Your task to perform on an android device: When is my next appointment? Image 0: 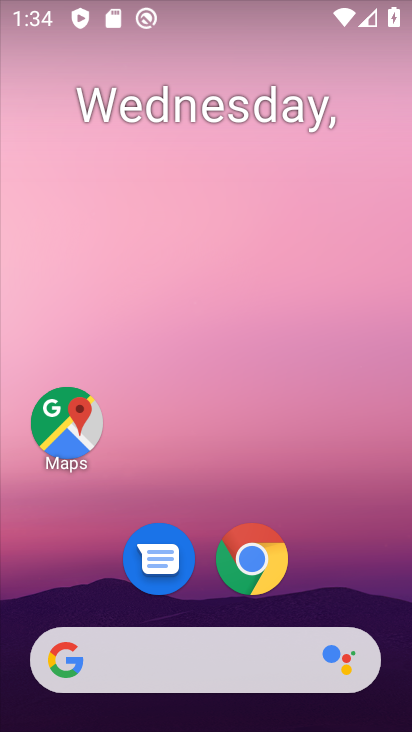
Step 0: drag from (195, 523) to (229, 74)
Your task to perform on an android device: When is my next appointment? Image 1: 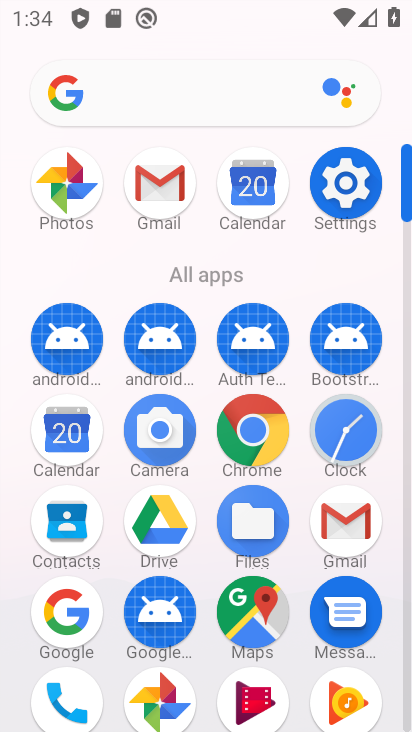
Step 1: click (56, 450)
Your task to perform on an android device: When is my next appointment? Image 2: 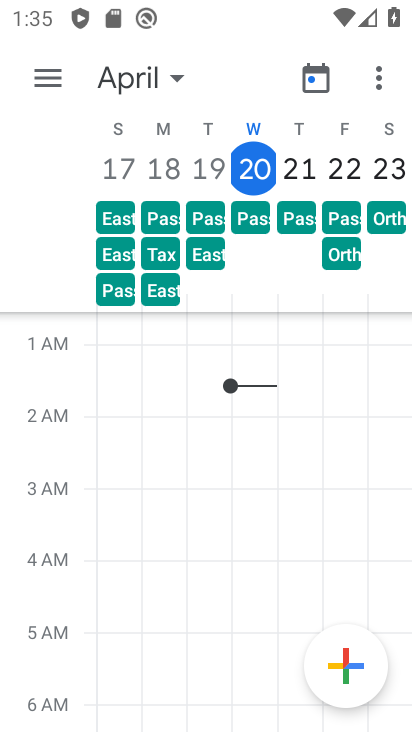
Step 2: click (297, 389)
Your task to perform on an android device: When is my next appointment? Image 3: 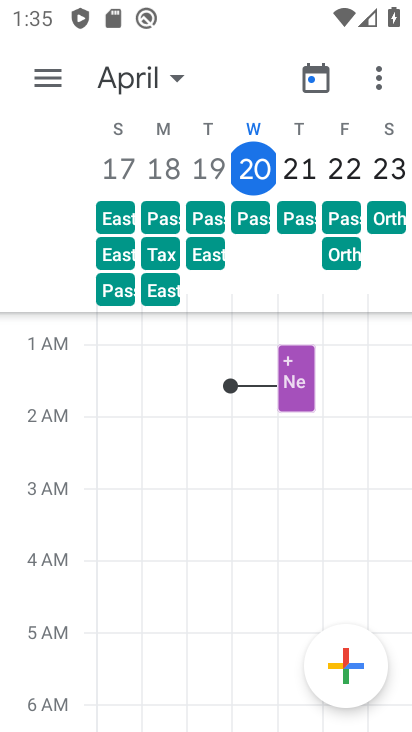
Step 3: click (294, 172)
Your task to perform on an android device: When is my next appointment? Image 4: 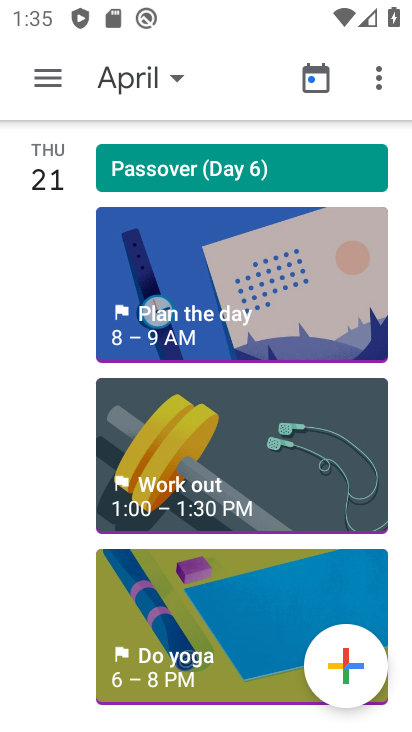
Step 4: task complete